Your task to perform on an android device: change notifications settings Image 0: 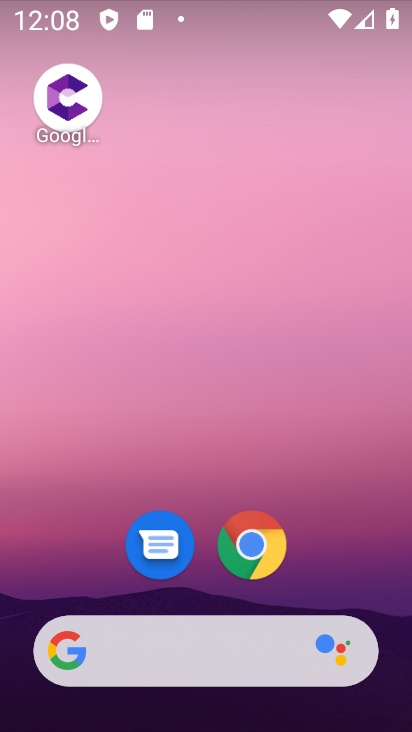
Step 0: drag from (334, 566) to (274, 12)
Your task to perform on an android device: change notifications settings Image 1: 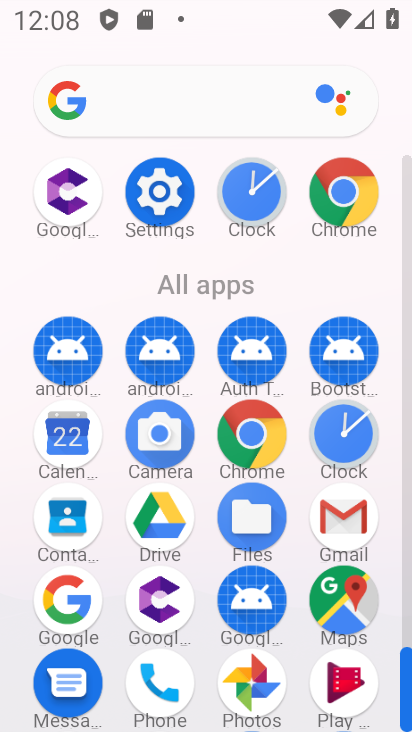
Step 1: click (169, 200)
Your task to perform on an android device: change notifications settings Image 2: 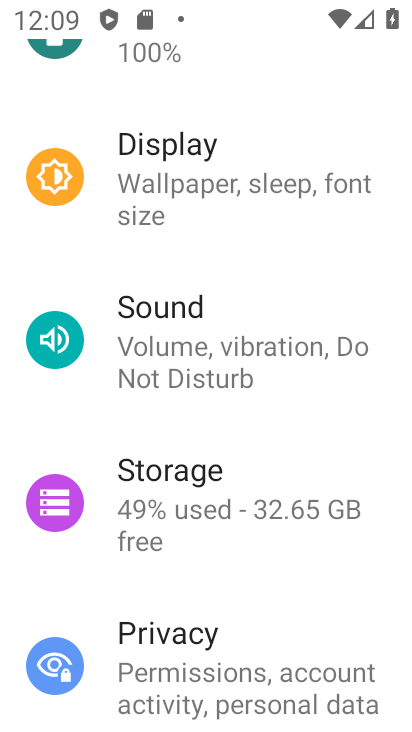
Step 2: drag from (307, 500) to (307, 45)
Your task to perform on an android device: change notifications settings Image 3: 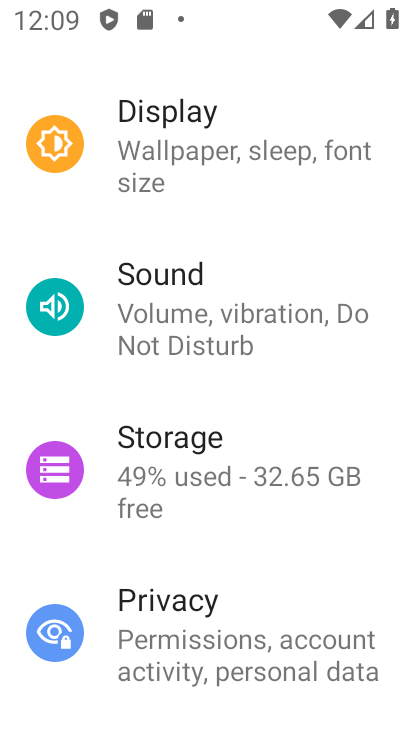
Step 3: drag from (244, 219) to (204, 645)
Your task to perform on an android device: change notifications settings Image 4: 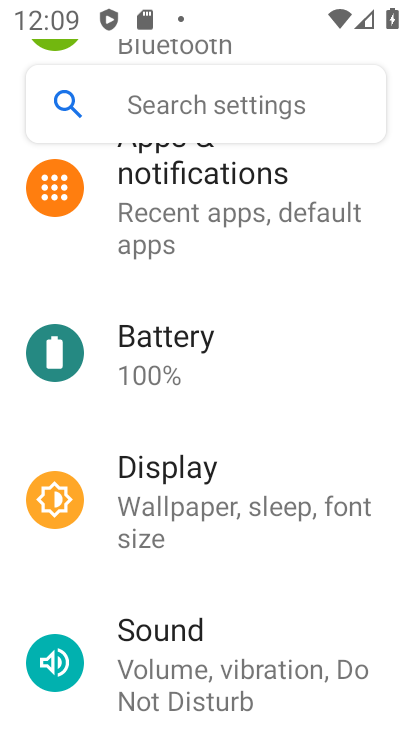
Step 4: click (199, 173)
Your task to perform on an android device: change notifications settings Image 5: 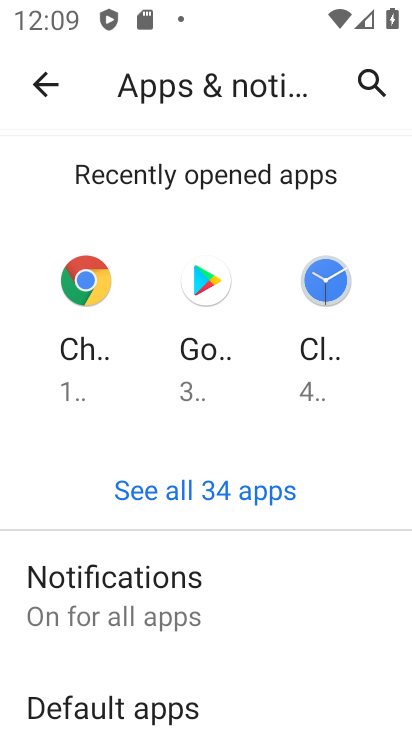
Step 5: click (142, 602)
Your task to perform on an android device: change notifications settings Image 6: 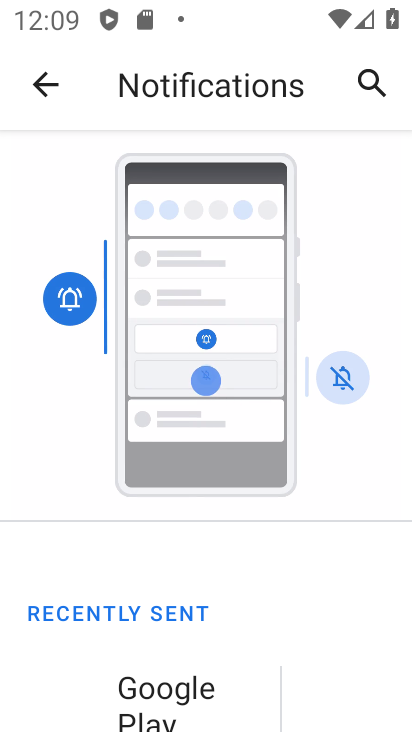
Step 6: drag from (322, 557) to (378, 166)
Your task to perform on an android device: change notifications settings Image 7: 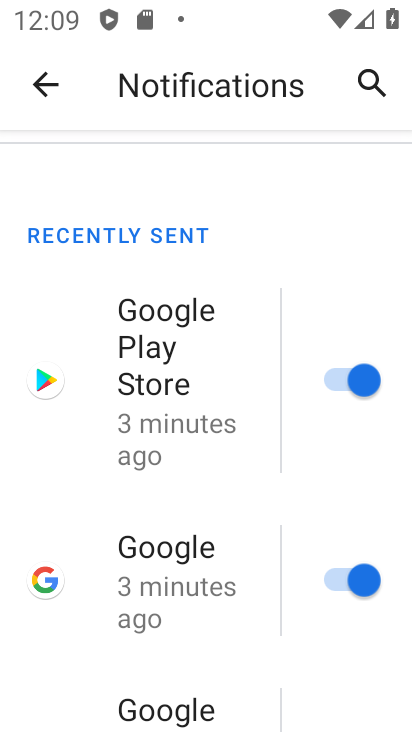
Step 7: drag from (196, 478) to (266, 71)
Your task to perform on an android device: change notifications settings Image 8: 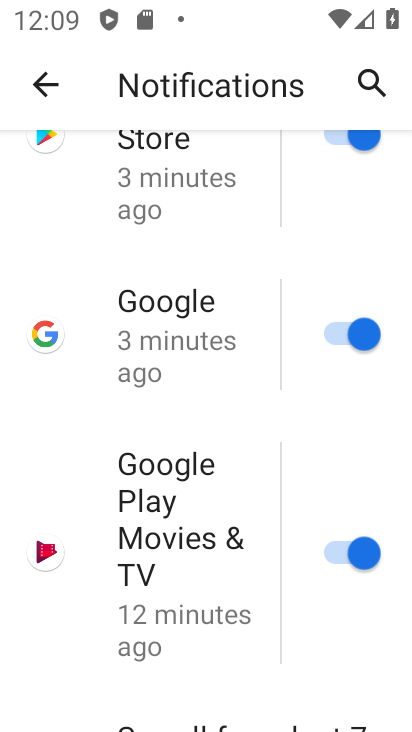
Step 8: drag from (243, 606) to (254, 174)
Your task to perform on an android device: change notifications settings Image 9: 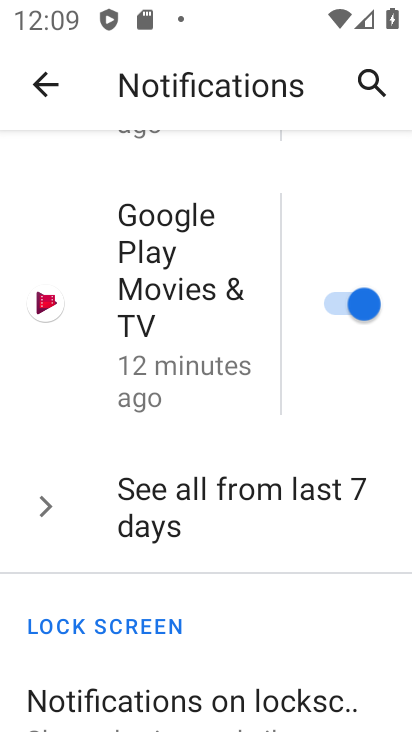
Step 9: drag from (188, 594) to (227, 198)
Your task to perform on an android device: change notifications settings Image 10: 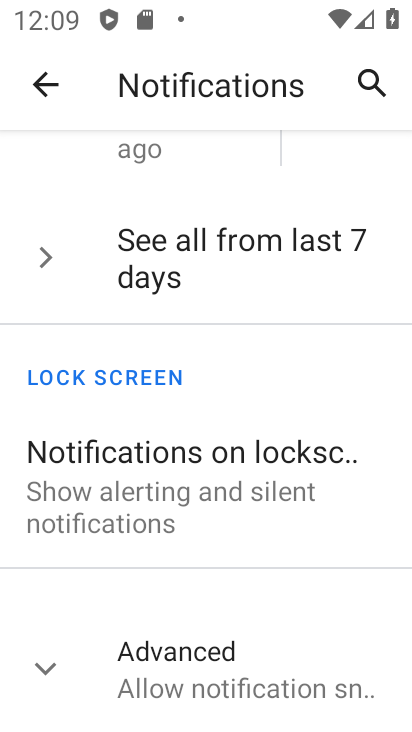
Step 10: click (246, 479)
Your task to perform on an android device: change notifications settings Image 11: 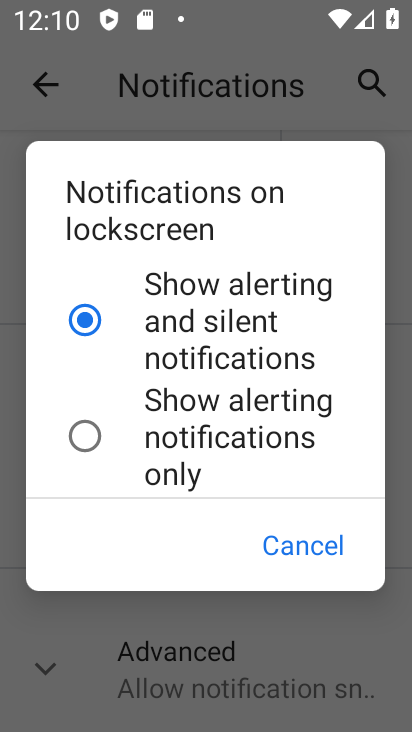
Step 11: click (85, 431)
Your task to perform on an android device: change notifications settings Image 12: 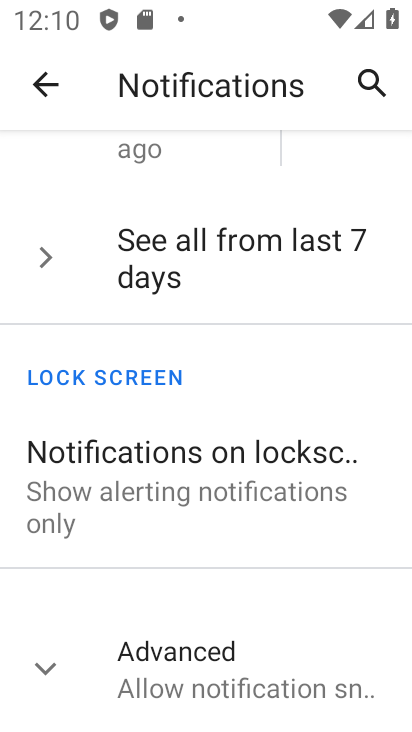
Step 12: task complete